Your task to perform on an android device: Open my contact list Image 0: 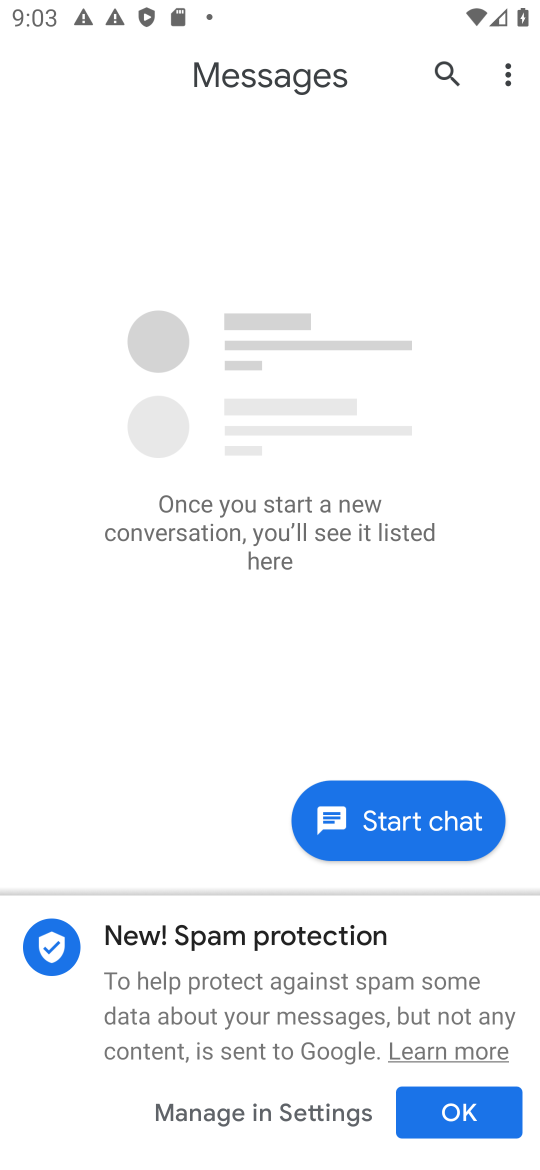
Step 0: press home button
Your task to perform on an android device: Open my contact list Image 1: 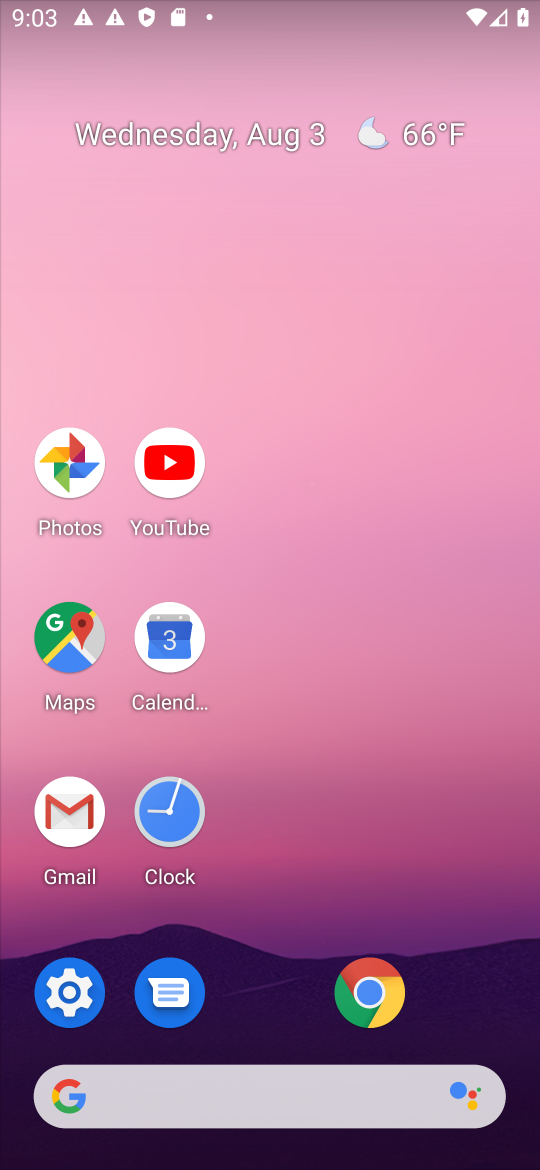
Step 1: drag from (273, 940) to (307, 34)
Your task to perform on an android device: Open my contact list Image 2: 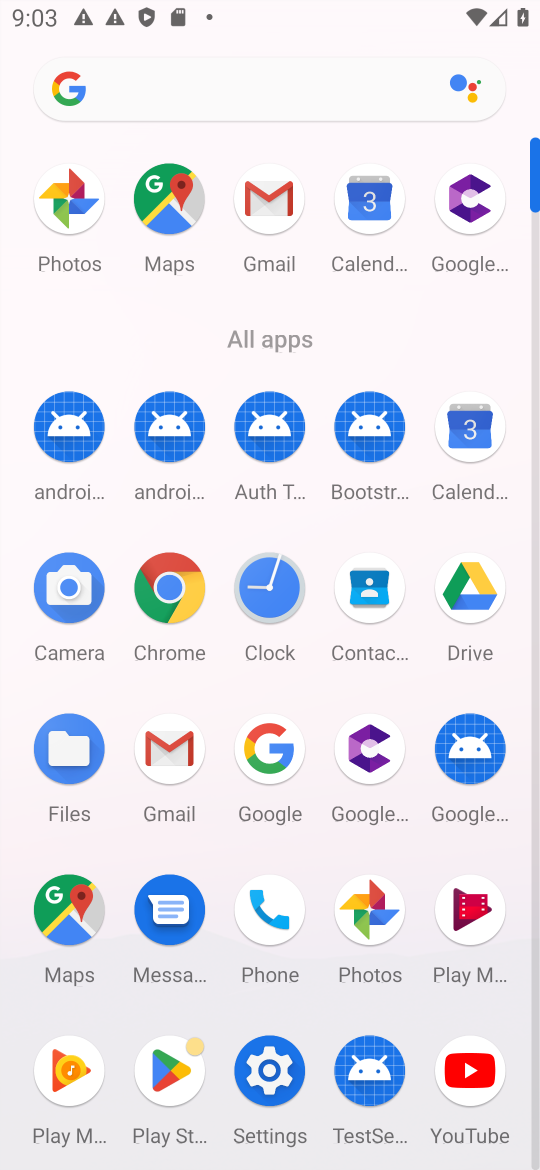
Step 2: click (376, 588)
Your task to perform on an android device: Open my contact list Image 3: 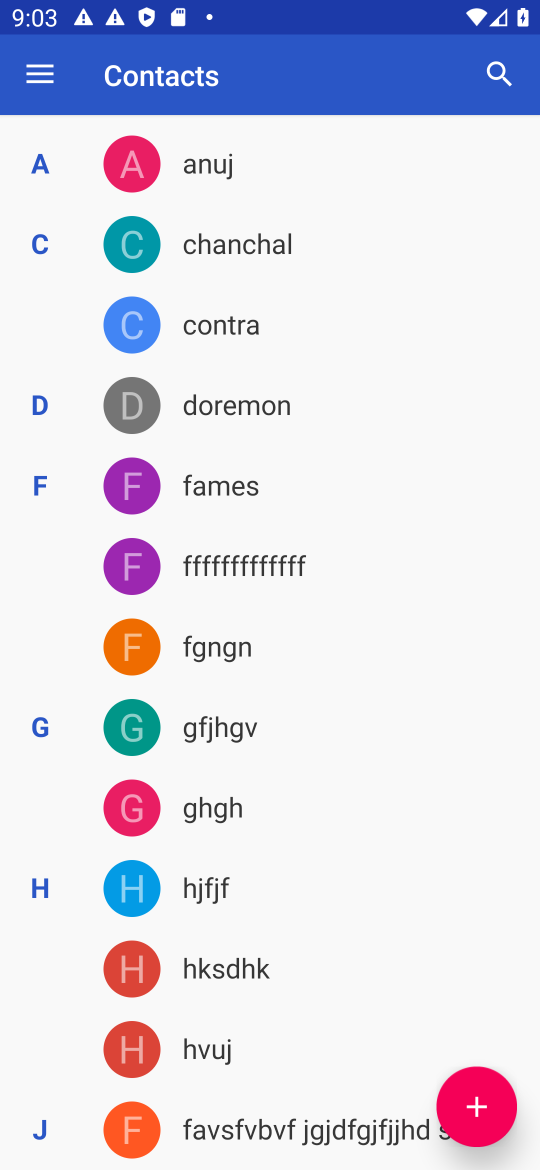
Step 3: task complete